Your task to perform on an android device: set the stopwatch Image 0: 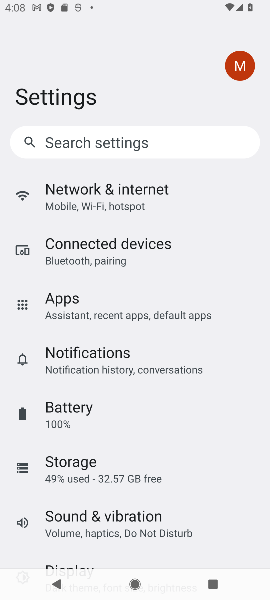
Step 0: press home button
Your task to perform on an android device: set the stopwatch Image 1: 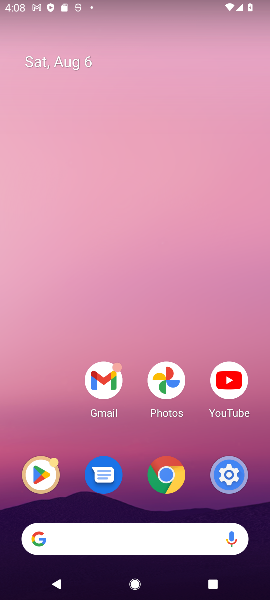
Step 1: drag from (142, 438) to (124, 34)
Your task to perform on an android device: set the stopwatch Image 2: 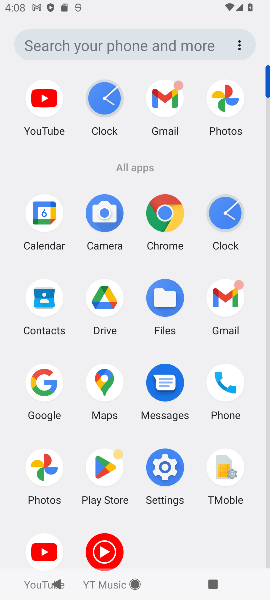
Step 2: click (216, 219)
Your task to perform on an android device: set the stopwatch Image 3: 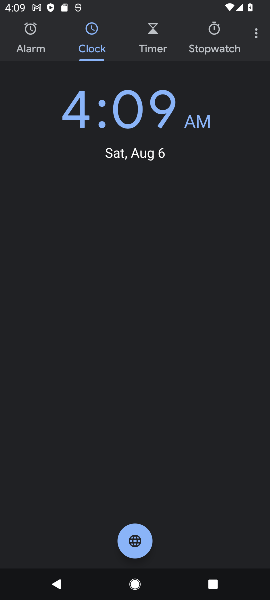
Step 3: click (227, 32)
Your task to perform on an android device: set the stopwatch Image 4: 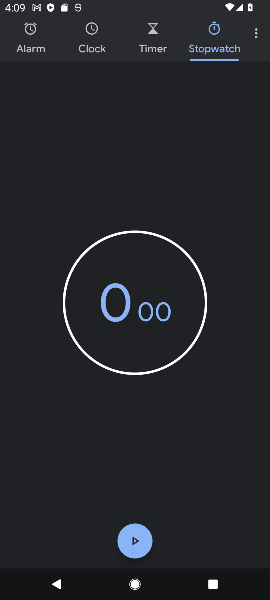
Step 4: click (131, 540)
Your task to perform on an android device: set the stopwatch Image 5: 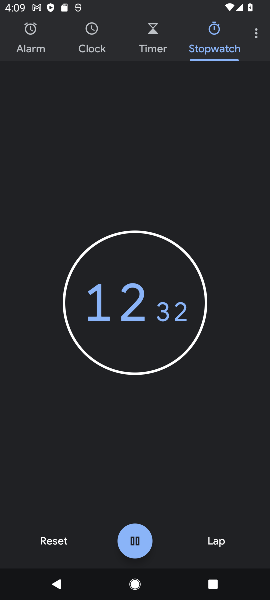
Step 5: task complete